Your task to perform on an android device: Do I have any events this weekend? Image 0: 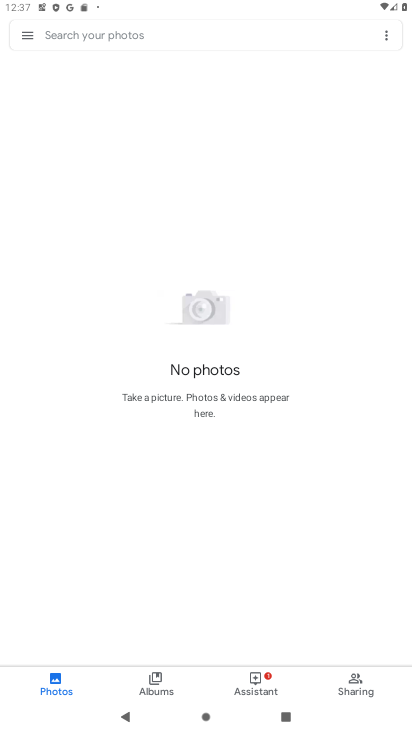
Step 0: press home button
Your task to perform on an android device: Do I have any events this weekend? Image 1: 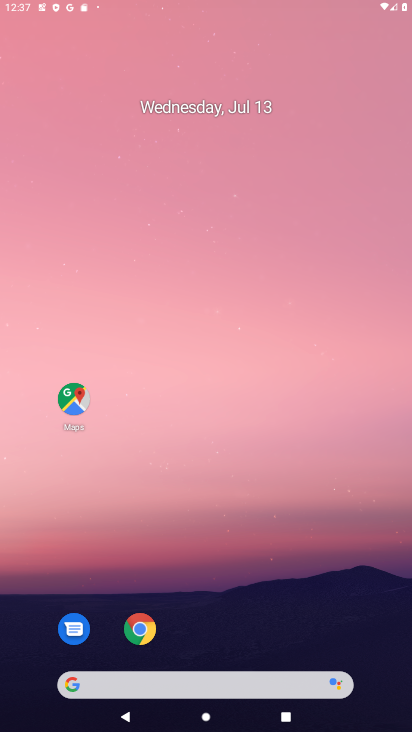
Step 1: drag from (228, 618) to (227, 321)
Your task to perform on an android device: Do I have any events this weekend? Image 2: 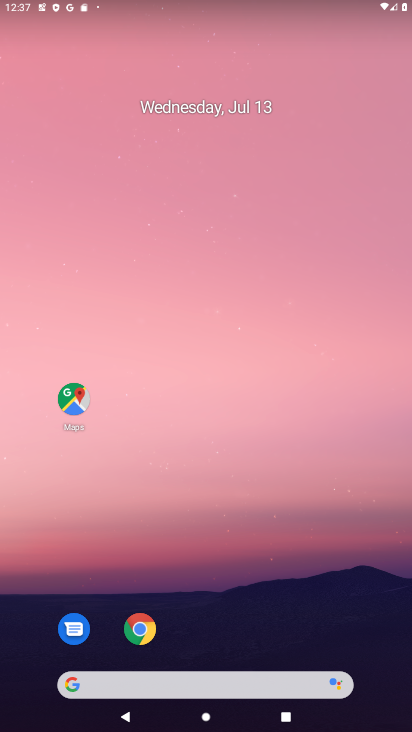
Step 2: drag from (208, 622) to (208, 261)
Your task to perform on an android device: Do I have any events this weekend? Image 3: 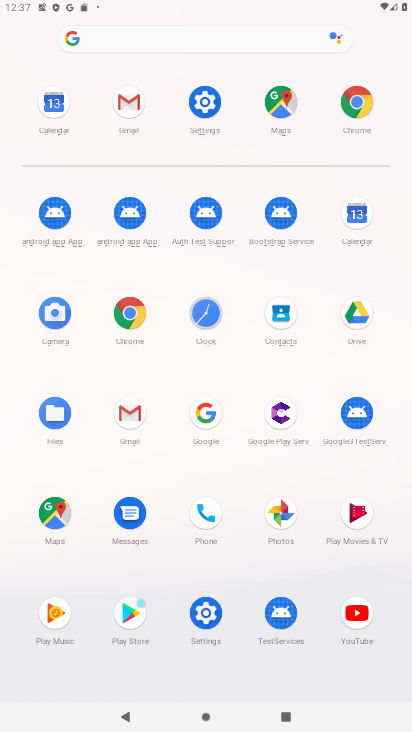
Step 3: click (355, 208)
Your task to perform on an android device: Do I have any events this weekend? Image 4: 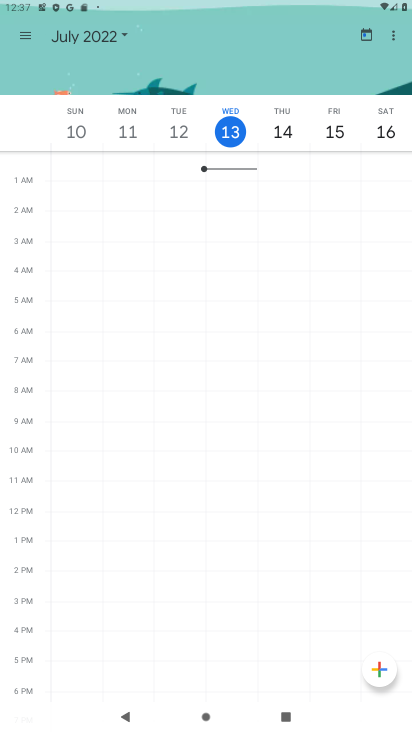
Step 4: task complete